Your task to perform on an android device: turn pop-ups on in chrome Image 0: 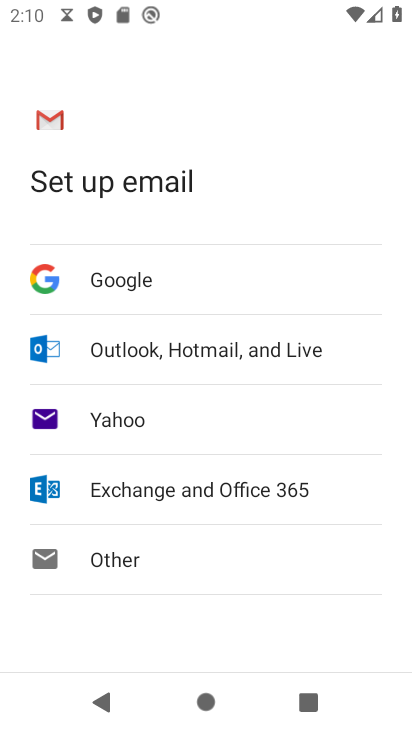
Step 0: press back button
Your task to perform on an android device: turn pop-ups on in chrome Image 1: 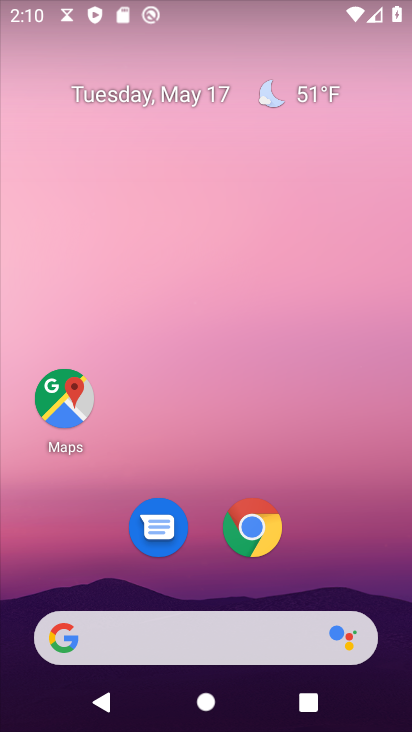
Step 1: click (251, 525)
Your task to perform on an android device: turn pop-ups on in chrome Image 2: 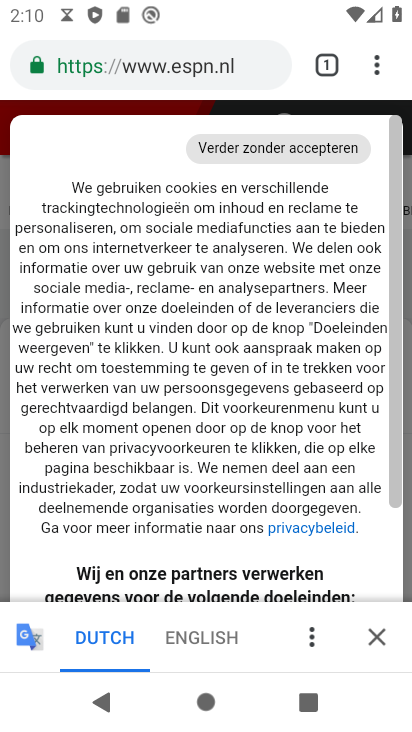
Step 2: click (377, 65)
Your task to perform on an android device: turn pop-ups on in chrome Image 3: 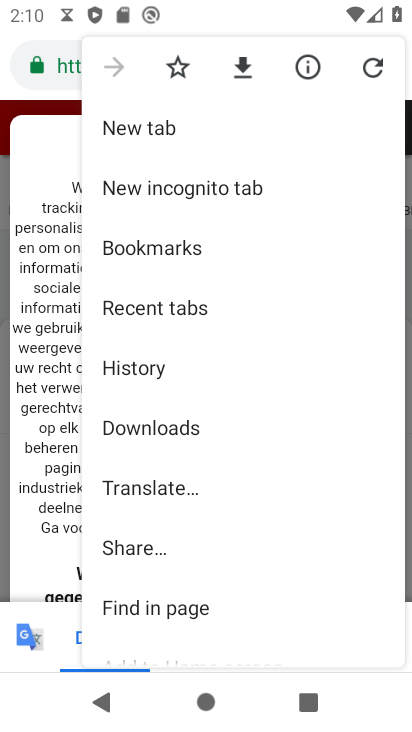
Step 3: drag from (165, 521) to (230, 400)
Your task to perform on an android device: turn pop-ups on in chrome Image 4: 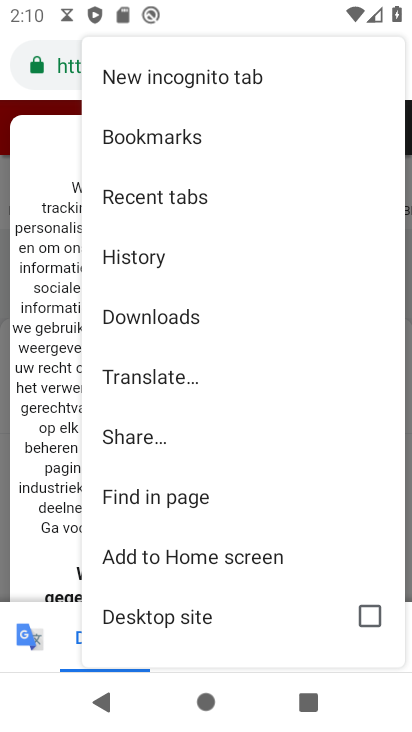
Step 4: drag from (172, 508) to (248, 403)
Your task to perform on an android device: turn pop-ups on in chrome Image 5: 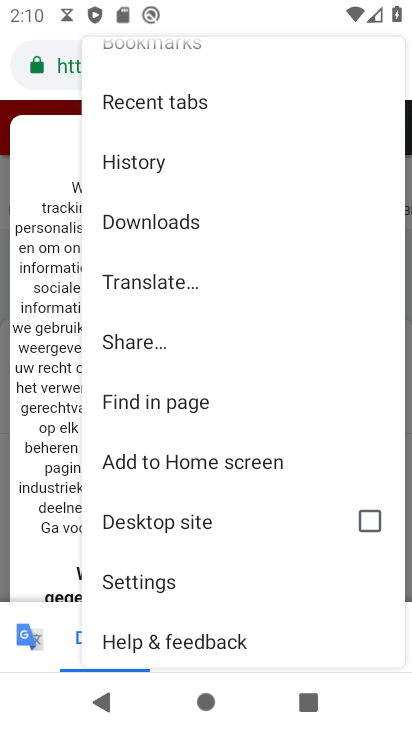
Step 5: drag from (154, 548) to (255, 429)
Your task to perform on an android device: turn pop-ups on in chrome Image 6: 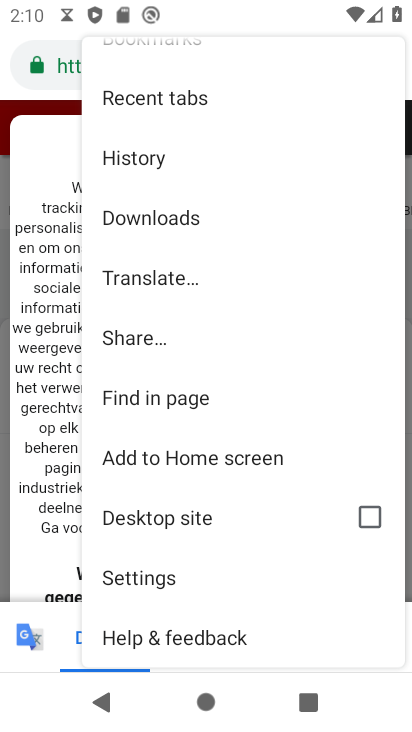
Step 6: click (149, 579)
Your task to perform on an android device: turn pop-ups on in chrome Image 7: 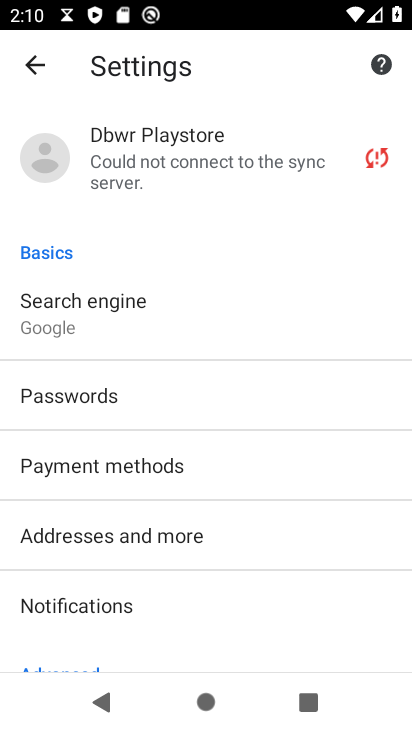
Step 7: drag from (193, 489) to (240, 415)
Your task to perform on an android device: turn pop-ups on in chrome Image 8: 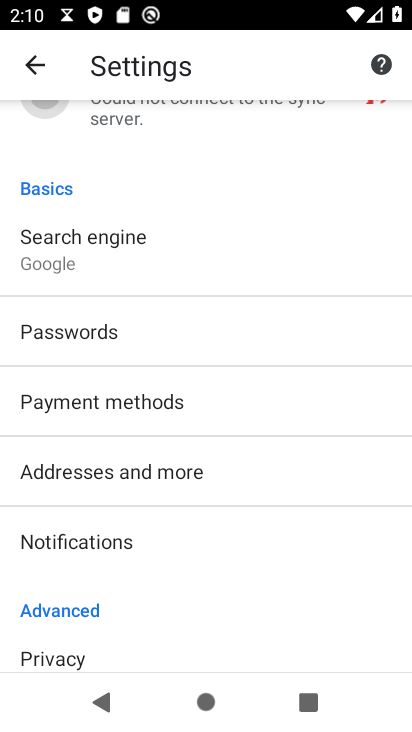
Step 8: drag from (161, 527) to (226, 437)
Your task to perform on an android device: turn pop-ups on in chrome Image 9: 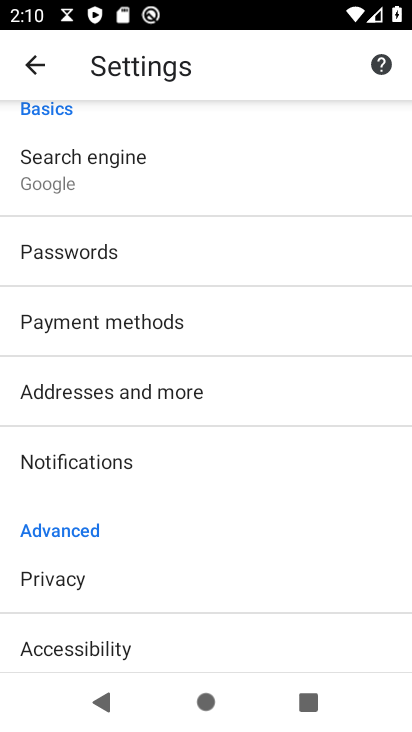
Step 9: drag from (146, 528) to (220, 442)
Your task to perform on an android device: turn pop-ups on in chrome Image 10: 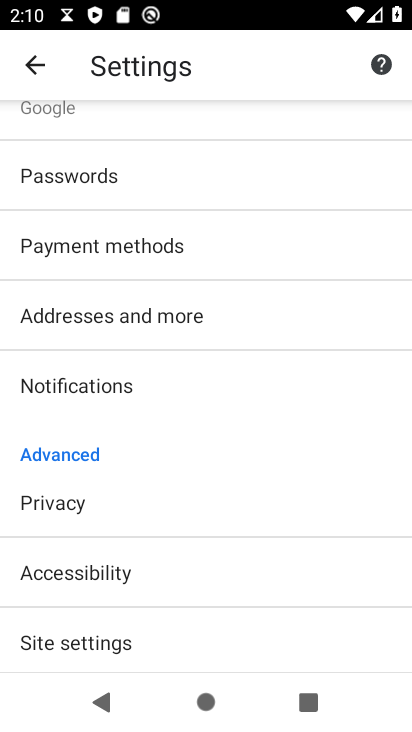
Step 10: drag from (132, 585) to (228, 466)
Your task to perform on an android device: turn pop-ups on in chrome Image 11: 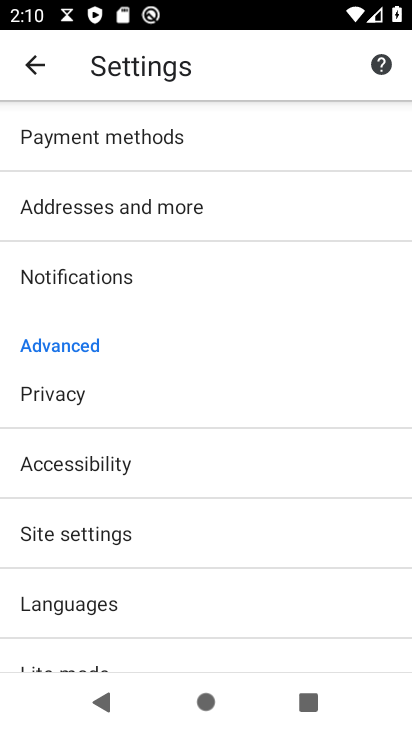
Step 11: drag from (126, 561) to (212, 468)
Your task to perform on an android device: turn pop-ups on in chrome Image 12: 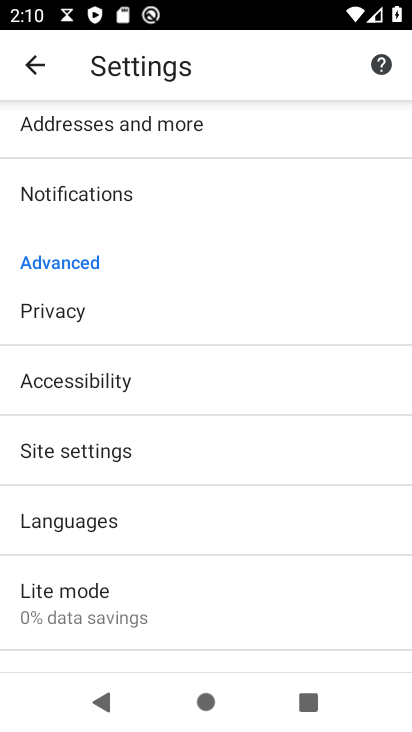
Step 12: click (101, 452)
Your task to perform on an android device: turn pop-ups on in chrome Image 13: 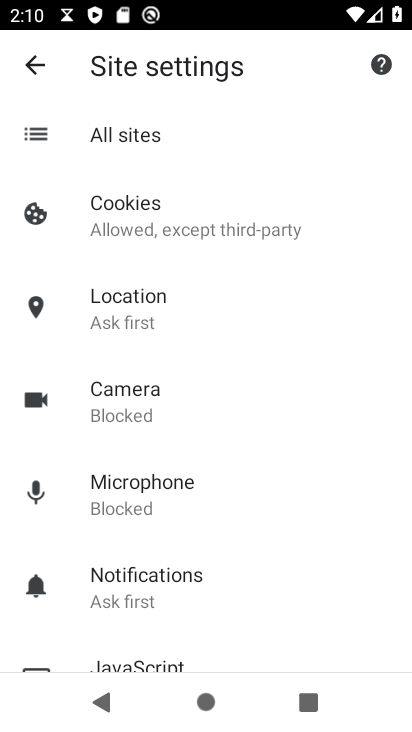
Step 13: drag from (193, 508) to (232, 429)
Your task to perform on an android device: turn pop-ups on in chrome Image 14: 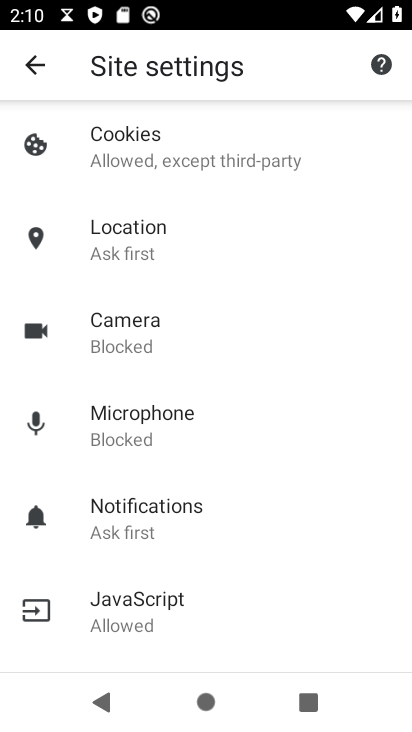
Step 14: drag from (200, 539) to (246, 451)
Your task to perform on an android device: turn pop-ups on in chrome Image 15: 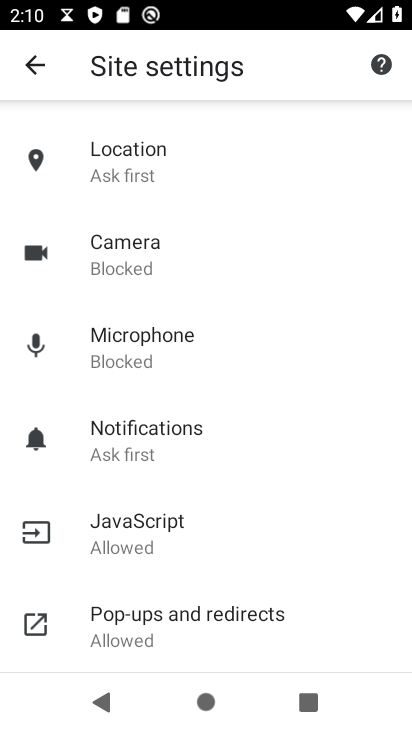
Step 15: drag from (192, 567) to (245, 497)
Your task to perform on an android device: turn pop-ups on in chrome Image 16: 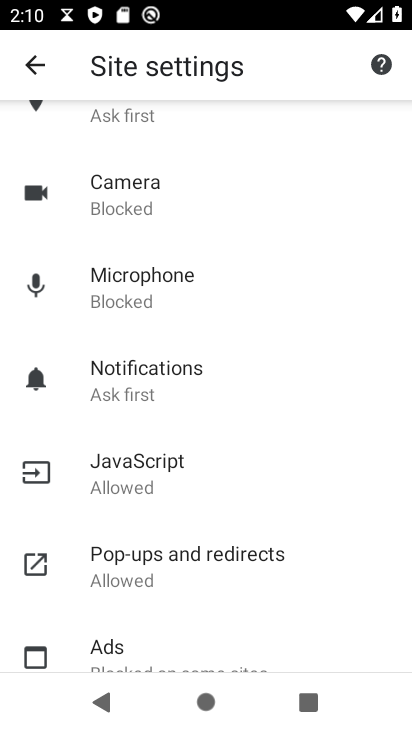
Step 16: click (212, 548)
Your task to perform on an android device: turn pop-ups on in chrome Image 17: 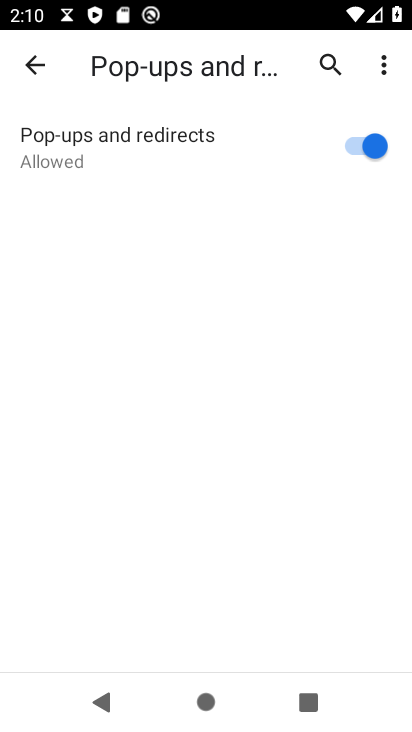
Step 17: task complete